Your task to perform on an android device: Open the calendar and show me this week's events Image 0: 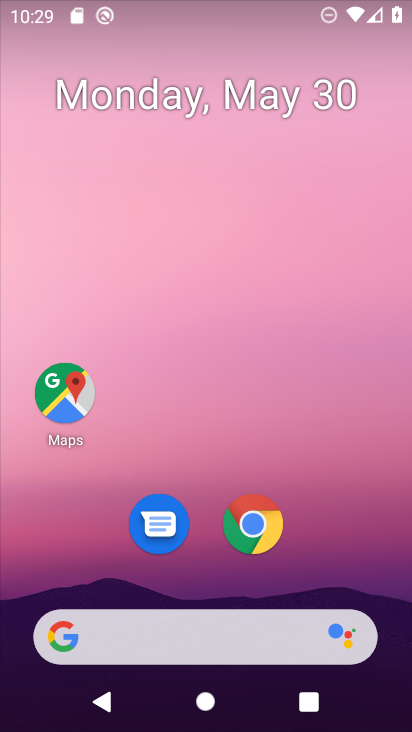
Step 0: drag from (332, 532) to (278, 45)
Your task to perform on an android device: Open the calendar and show me this week's events Image 1: 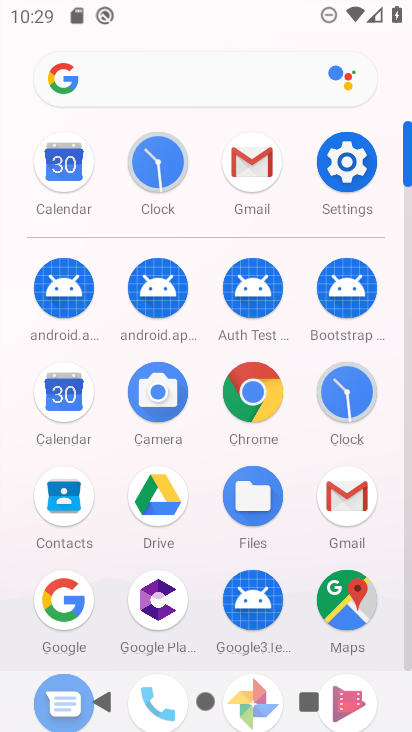
Step 1: click (73, 158)
Your task to perform on an android device: Open the calendar and show me this week's events Image 2: 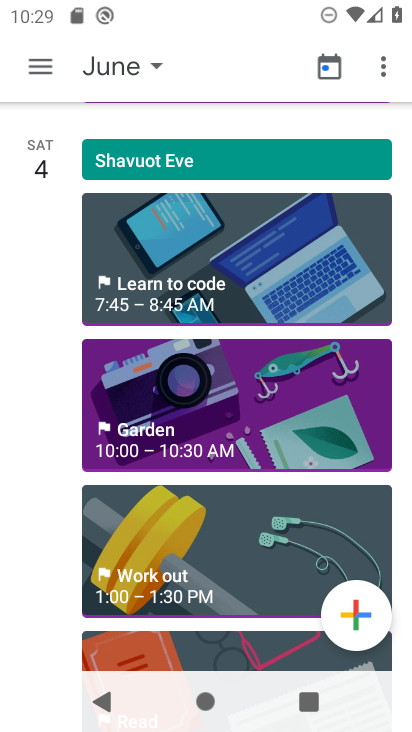
Step 2: drag from (142, 130) to (183, 613)
Your task to perform on an android device: Open the calendar and show me this week's events Image 3: 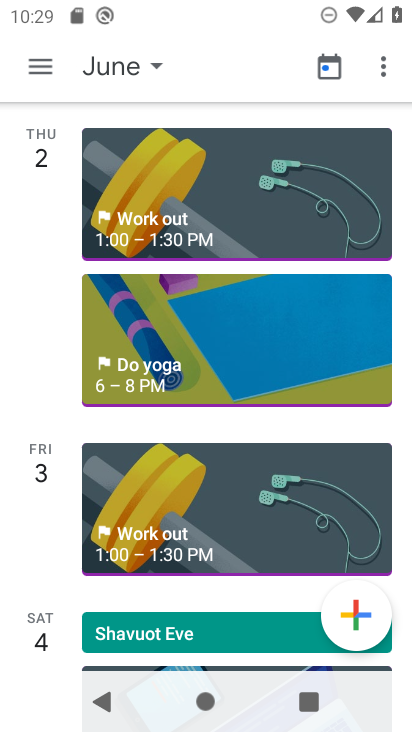
Step 3: drag from (215, 153) to (244, 628)
Your task to perform on an android device: Open the calendar and show me this week's events Image 4: 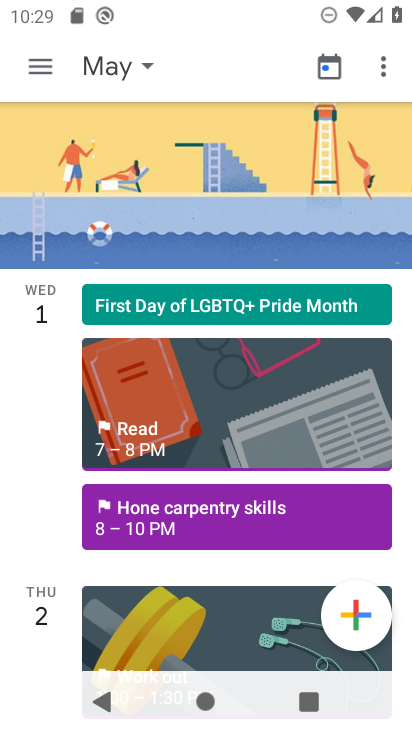
Step 4: drag from (215, 135) to (241, 679)
Your task to perform on an android device: Open the calendar and show me this week's events Image 5: 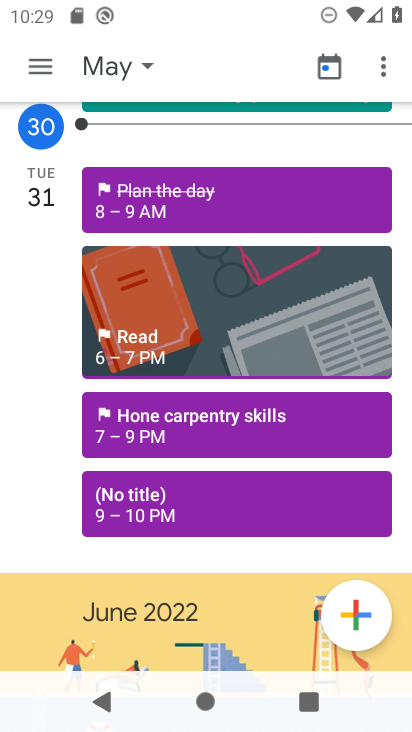
Step 5: click (46, 59)
Your task to perform on an android device: Open the calendar and show me this week's events Image 6: 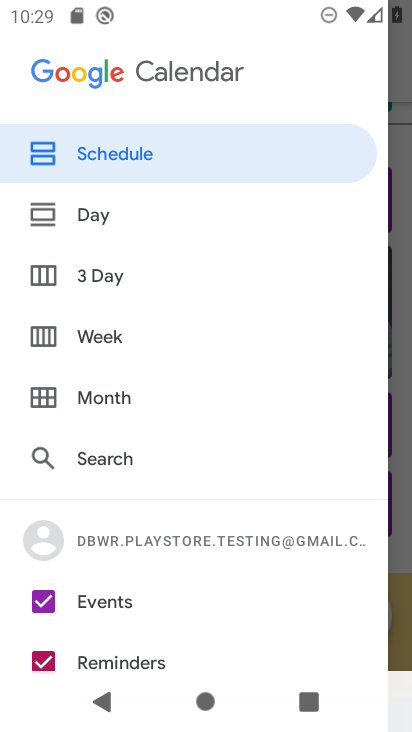
Step 6: click (41, 329)
Your task to perform on an android device: Open the calendar and show me this week's events Image 7: 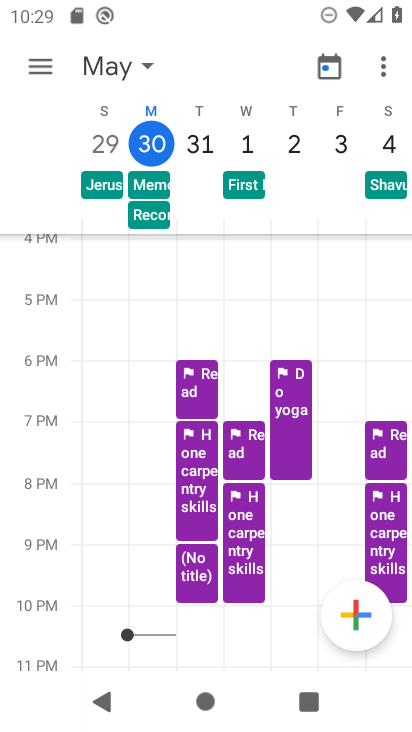
Step 7: task complete